Your task to perform on an android device: change notifications settings Image 0: 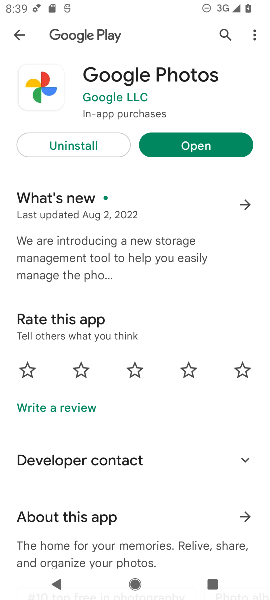
Step 0: press home button
Your task to perform on an android device: change notifications settings Image 1: 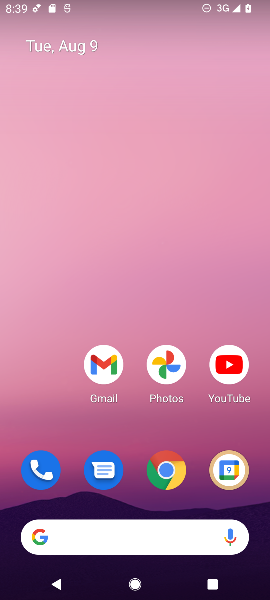
Step 1: drag from (120, 537) to (150, 86)
Your task to perform on an android device: change notifications settings Image 2: 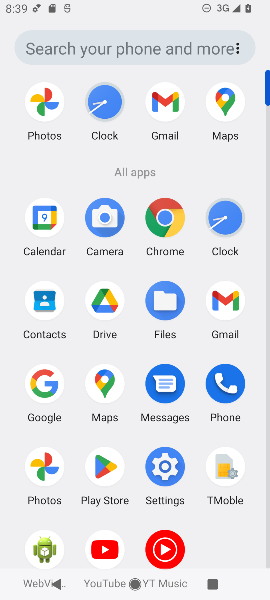
Step 2: click (168, 465)
Your task to perform on an android device: change notifications settings Image 3: 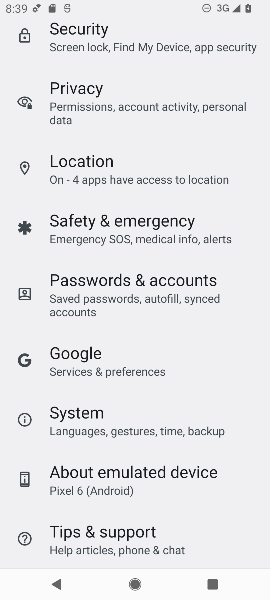
Step 3: drag from (163, 124) to (173, 252)
Your task to perform on an android device: change notifications settings Image 4: 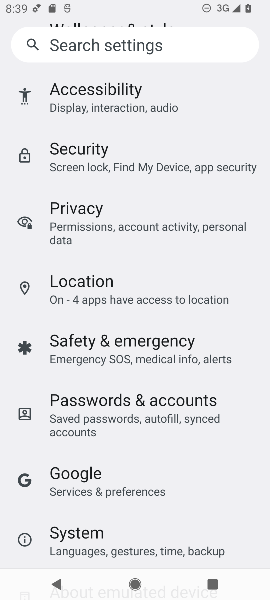
Step 4: drag from (184, 91) to (171, 212)
Your task to perform on an android device: change notifications settings Image 5: 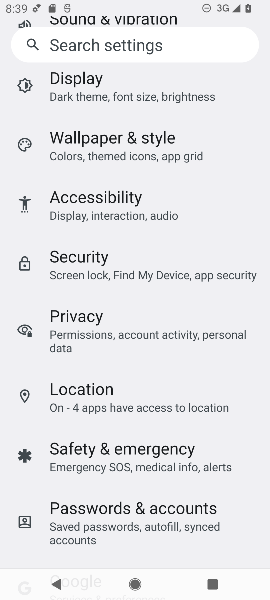
Step 5: drag from (163, 77) to (175, 203)
Your task to perform on an android device: change notifications settings Image 6: 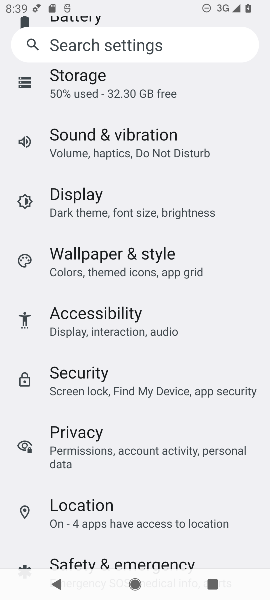
Step 6: drag from (134, 81) to (135, 221)
Your task to perform on an android device: change notifications settings Image 7: 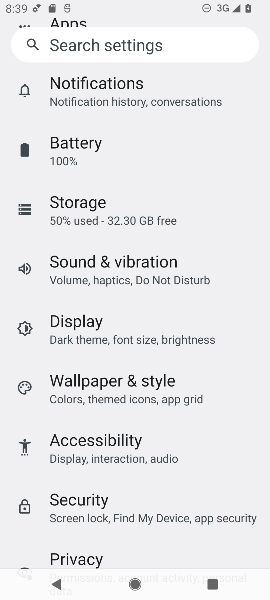
Step 7: click (130, 101)
Your task to perform on an android device: change notifications settings Image 8: 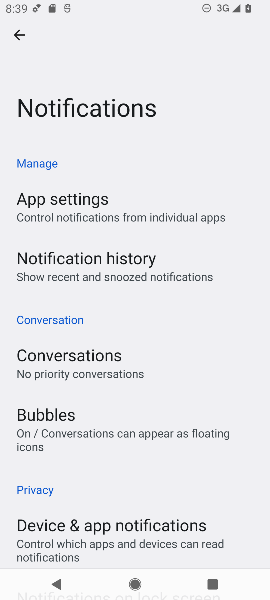
Step 8: drag from (92, 394) to (140, 286)
Your task to perform on an android device: change notifications settings Image 9: 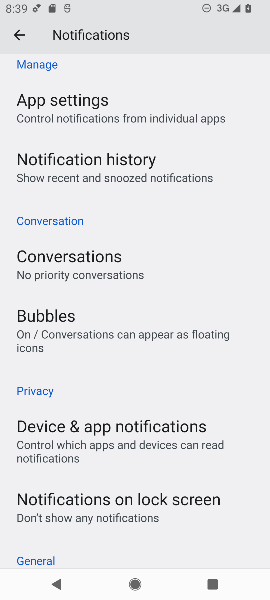
Step 9: drag from (114, 483) to (171, 371)
Your task to perform on an android device: change notifications settings Image 10: 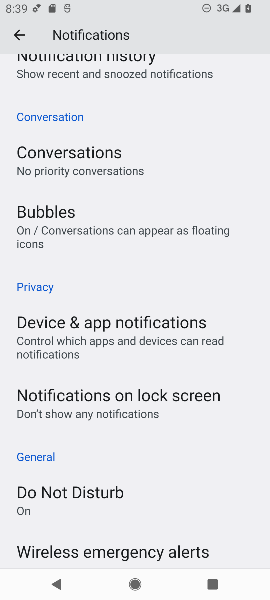
Step 10: drag from (94, 512) to (156, 393)
Your task to perform on an android device: change notifications settings Image 11: 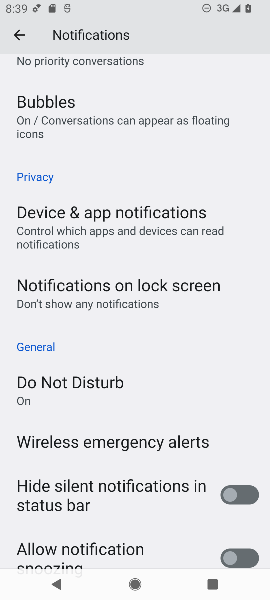
Step 11: drag from (118, 515) to (187, 388)
Your task to perform on an android device: change notifications settings Image 12: 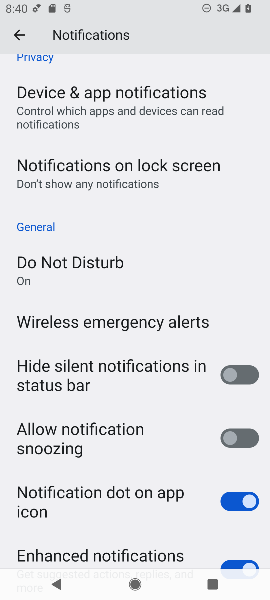
Step 12: click (231, 498)
Your task to perform on an android device: change notifications settings Image 13: 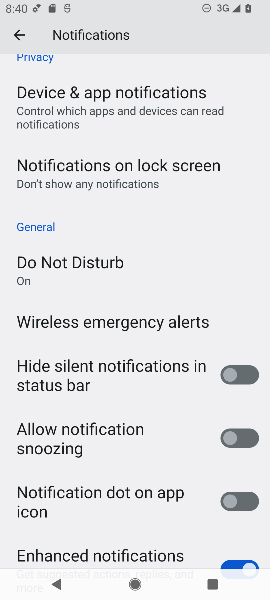
Step 13: task complete